Your task to perform on an android device: find which apps use the phone's location Image 0: 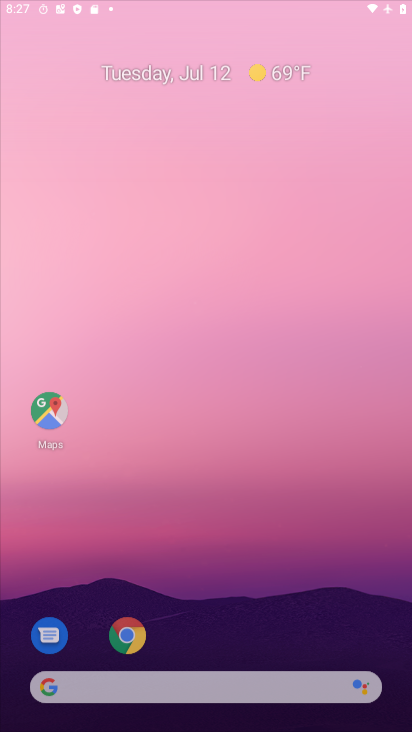
Step 0: press home button
Your task to perform on an android device: find which apps use the phone's location Image 1: 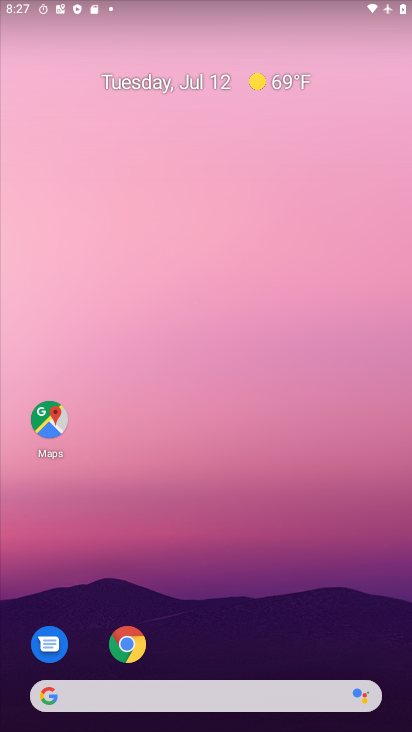
Step 1: drag from (244, 650) to (247, 79)
Your task to perform on an android device: find which apps use the phone's location Image 2: 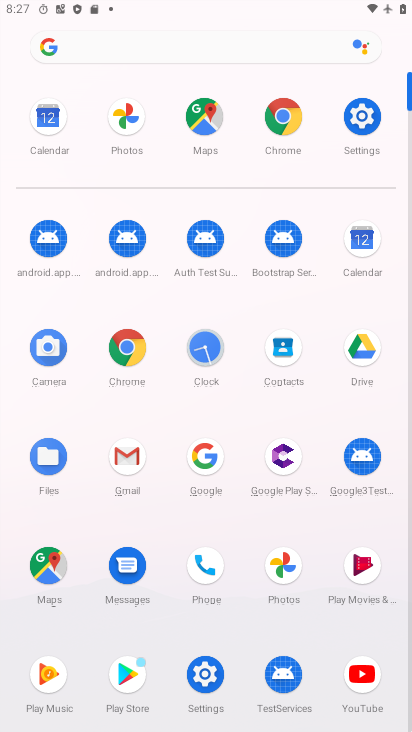
Step 2: click (360, 108)
Your task to perform on an android device: find which apps use the phone's location Image 3: 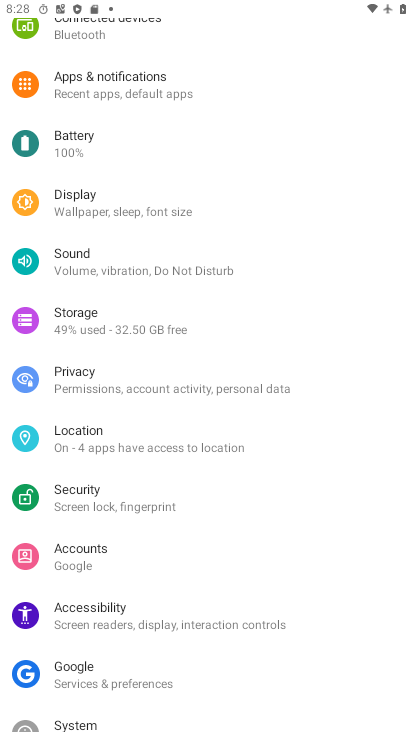
Step 3: click (114, 433)
Your task to perform on an android device: find which apps use the phone's location Image 4: 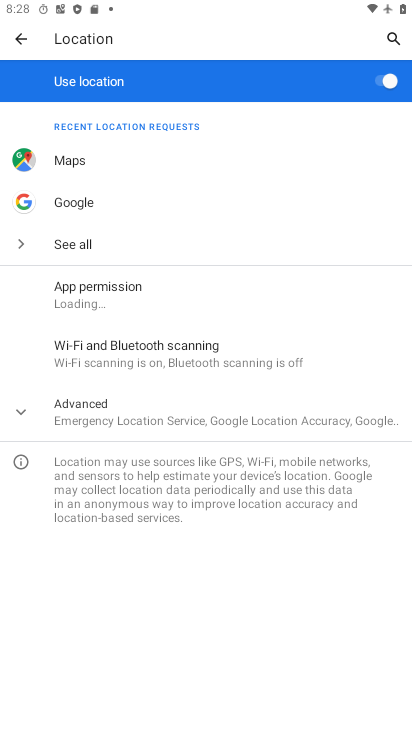
Step 4: click (107, 294)
Your task to perform on an android device: find which apps use the phone's location Image 5: 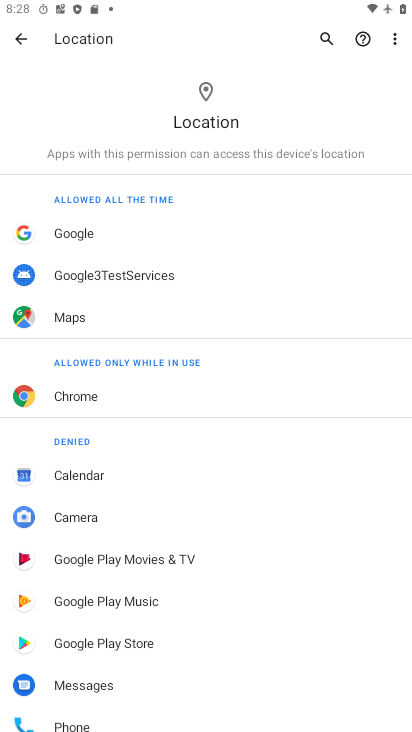
Step 5: task complete